Your task to perform on an android device: Google the capital of Uruguay Image 0: 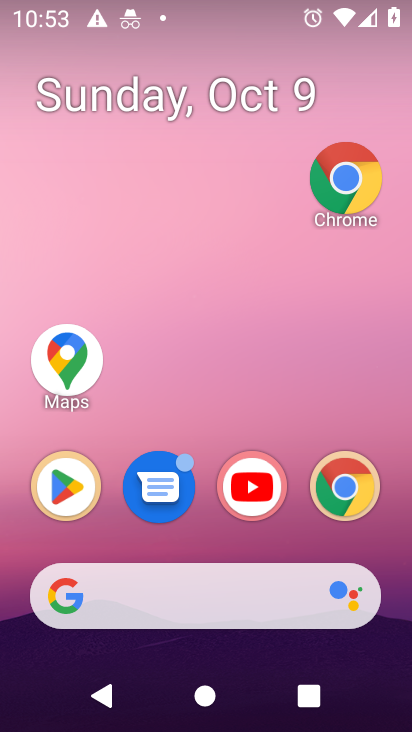
Step 0: drag from (292, 639) to (315, 206)
Your task to perform on an android device: Google the capital of Uruguay Image 1: 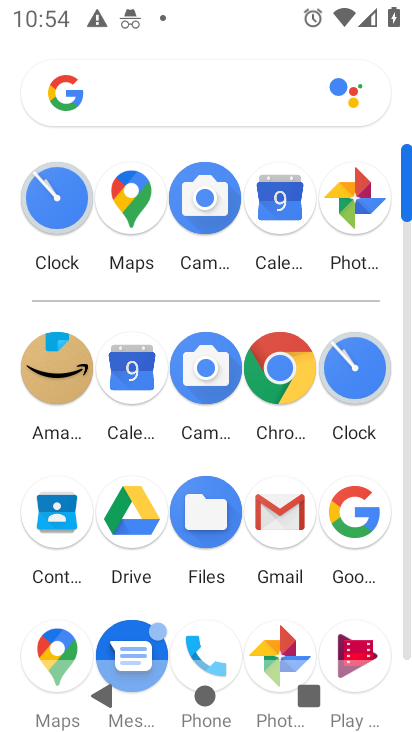
Step 1: click (358, 525)
Your task to perform on an android device: Google the capital of Uruguay Image 2: 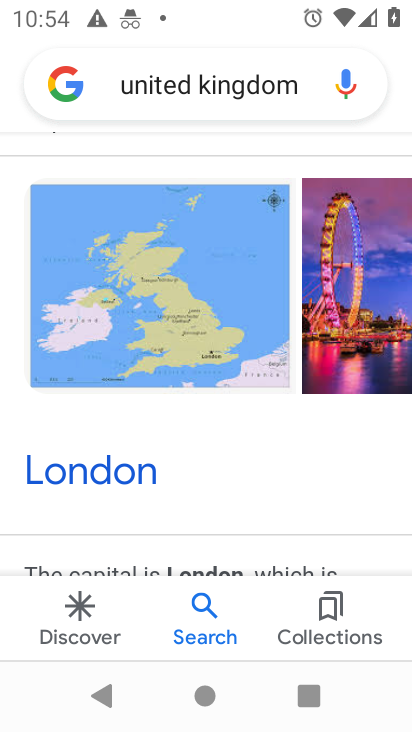
Step 2: click (298, 86)
Your task to perform on an android device: Google the capital of Uruguay Image 3: 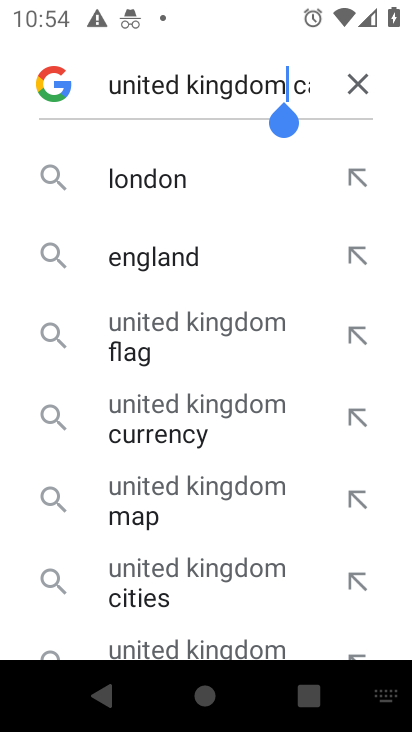
Step 3: click (360, 87)
Your task to perform on an android device: Google the capital of Uruguay Image 4: 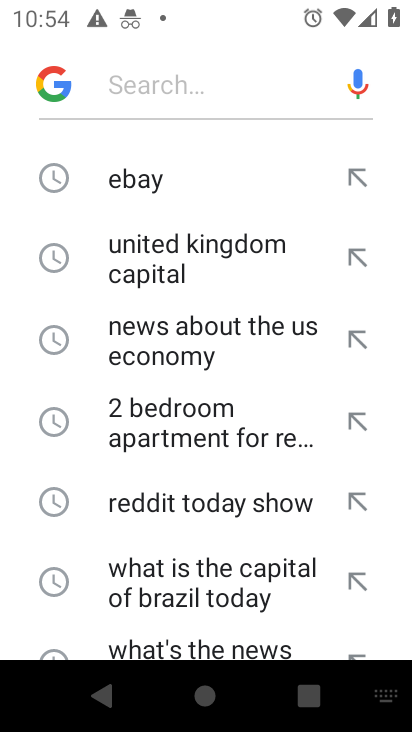
Step 4: type "capital of Uruguay"
Your task to perform on an android device: Google the capital of Uruguay Image 5: 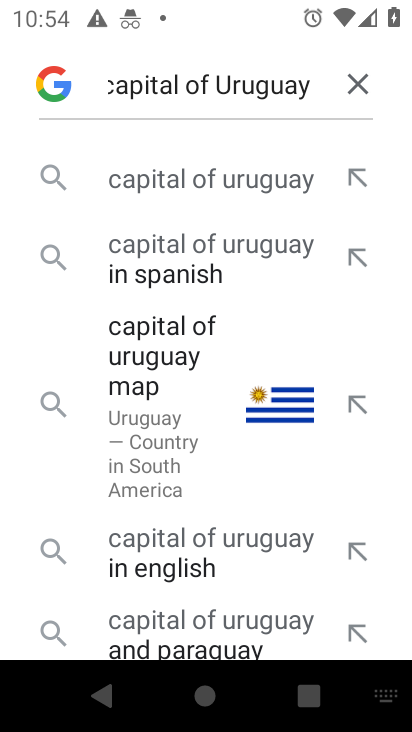
Step 5: click (247, 179)
Your task to perform on an android device: Google the capital of Uruguay Image 6: 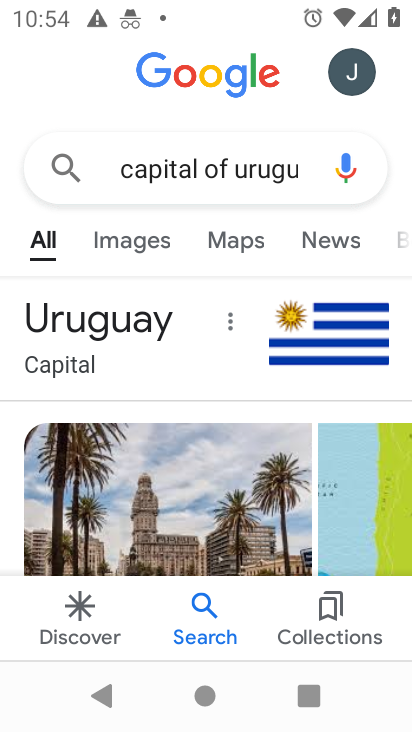
Step 6: task complete